Your task to perform on an android device: move a message to another label in the gmail app Image 0: 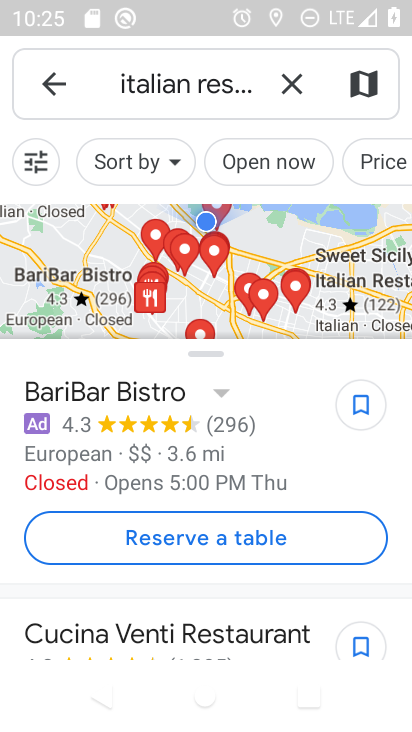
Step 0: press home button
Your task to perform on an android device: move a message to another label in the gmail app Image 1: 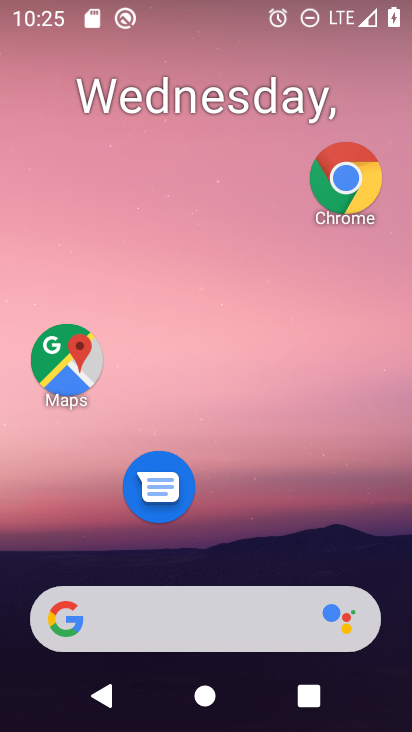
Step 1: drag from (247, 632) to (216, 131)
Your task to perform on an android device: move a message to another label in the gmail app Image 2: 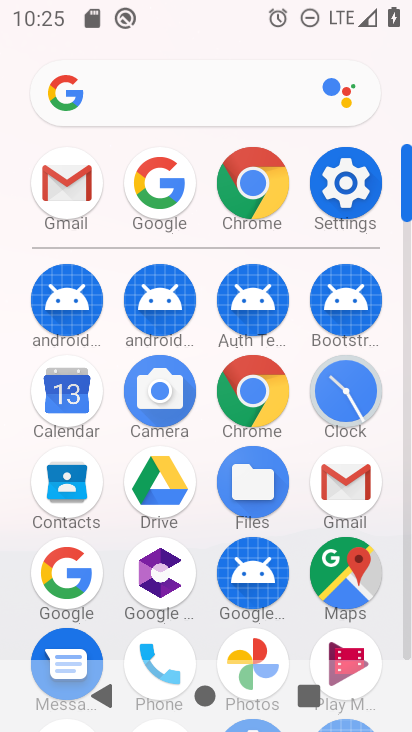
Step 2: click (340, 488)
Your task to perform on an android device: move a message to another label in the gmail app Image 3: 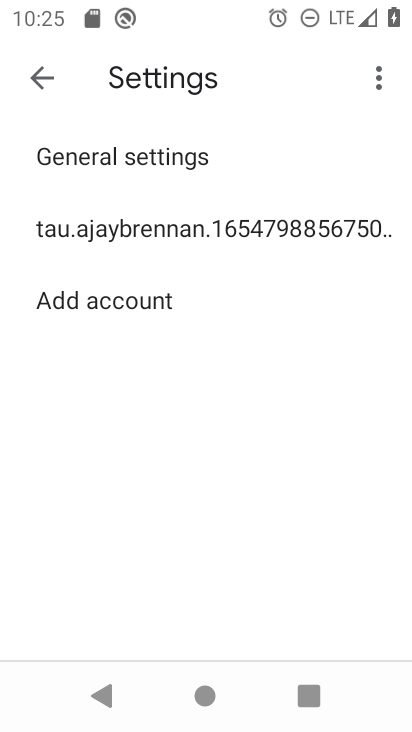
Step 3: click (40, 90)
Your task to perform on an android device: move a message to another label in the gmail app Image 4: 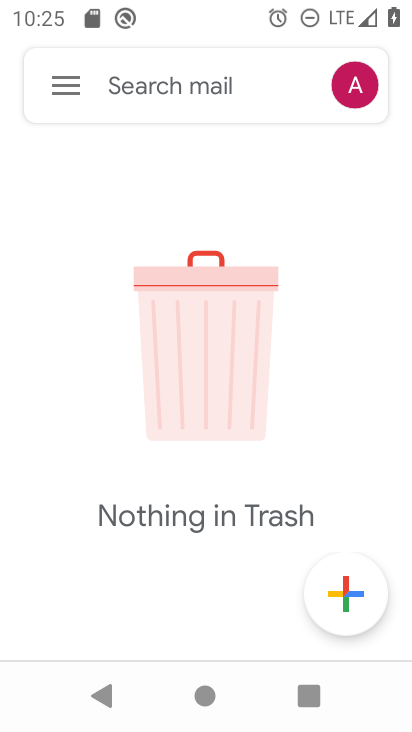
Step 4: click (66, 87)
Your task to perform on an android device: move a message to another label in the gmail app Image 5: 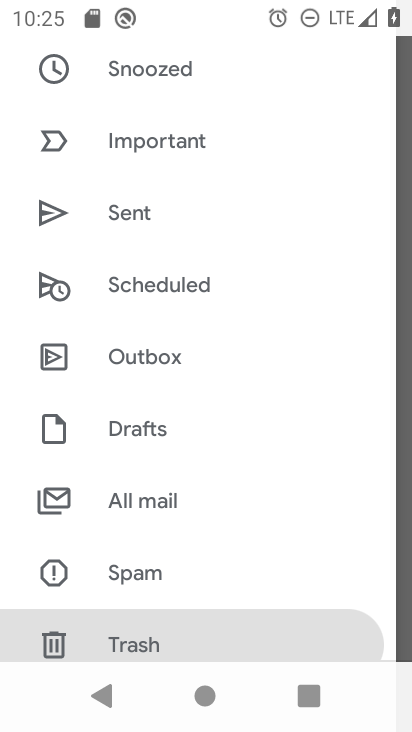
Step 5: click (161, 511)
Your task to perform on an android device: move a message to another label in the gmail app Image 6: 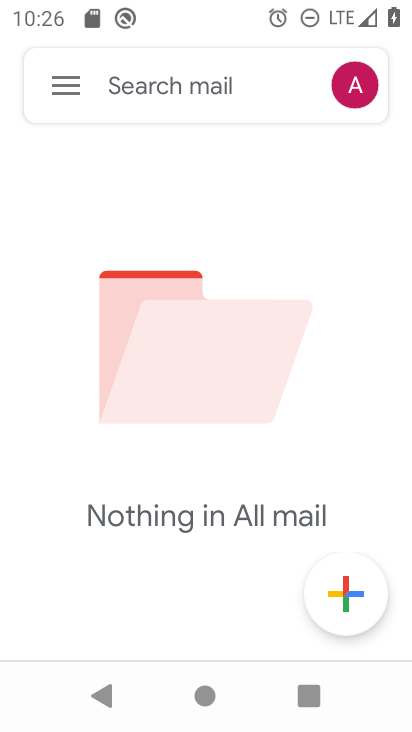
Step 6: task complete